Your task to perform on an android device: move a message to another label in the gmail app Image 0: 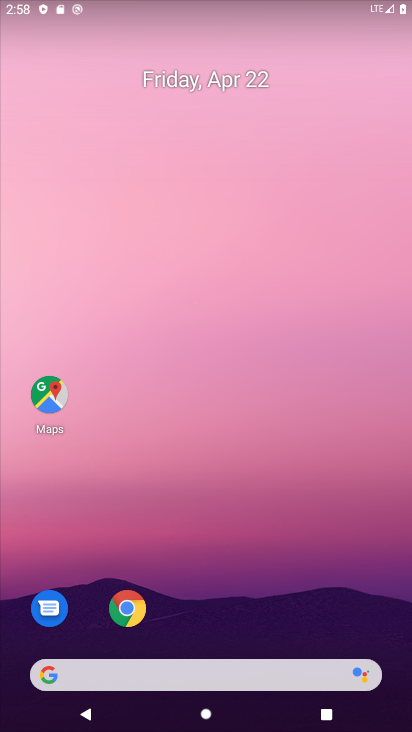
Step 0: drag from (293, 691) to (195, 132)
Your task to perform on an android device: move a message to another label in the gmail app Image 1: 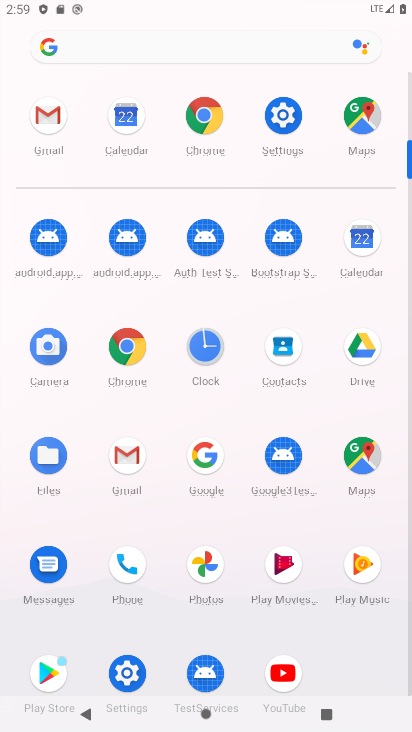
Step 1: click (131, 452)
Your task to perform on an android device: move a message to another label in the gmail app Image 2: 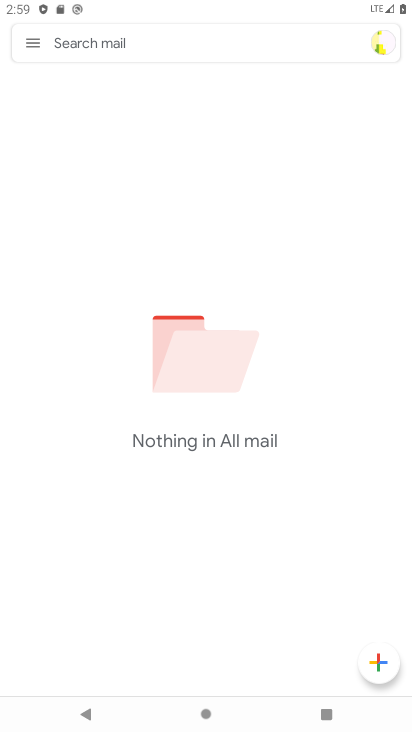
Step 2: click (23, 52)
Your task to perform on an android device: move a message to another label in the gmail app Image 3: 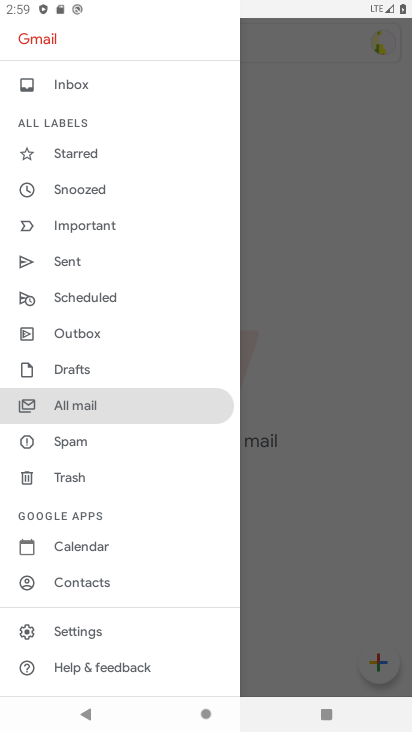
Step 3: click (95, 631)
Your task to perform on an android device: move a message to another label in the gmail app Image 4: 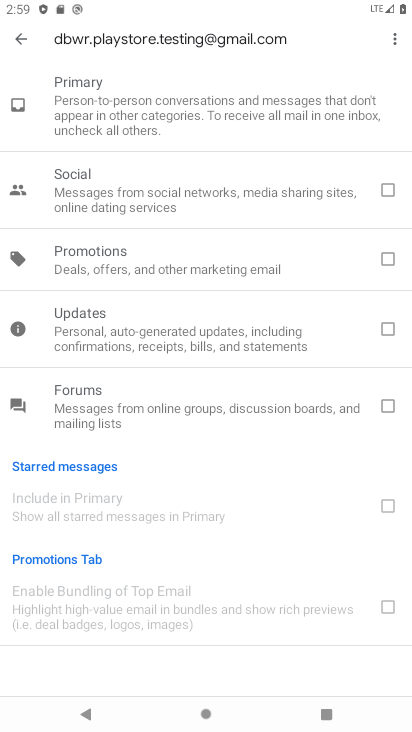
Step 4: click (20, 39)
Your task to perform on an android device: move a message to another label in the gmail app Image 5: 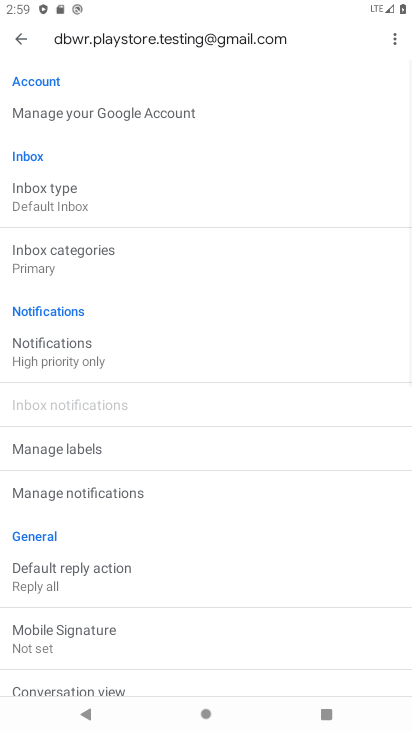
Step 5: click (95, 455)
Your task to perform on an android device: move a message to another label in the gmail app Image 6: 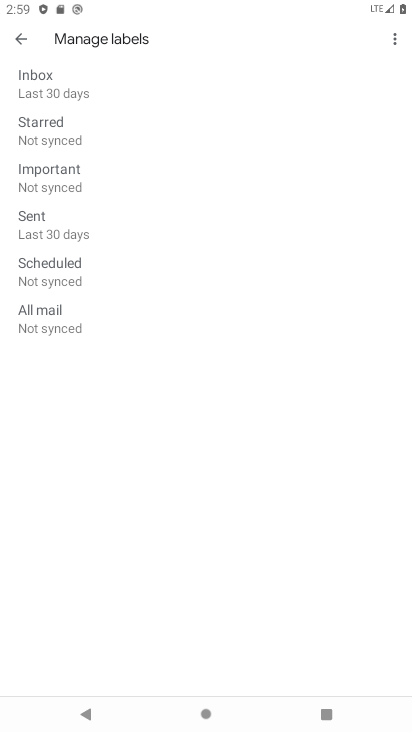
Step 6: click (85, 153)
Your task to perform on an android device: move a message to another label in the gmail app Image 7: 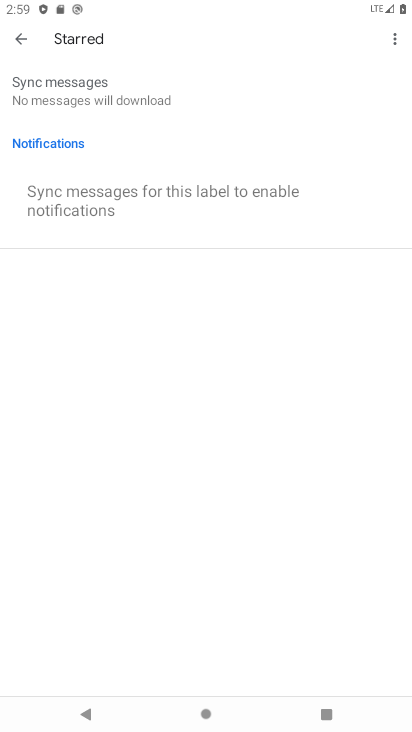
Step 7: task complete